Your task to perform on an android device: Search for hotels in Seattle Image 0: 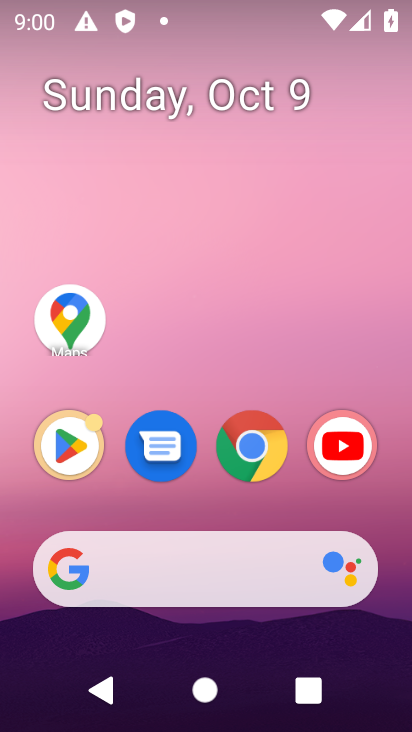
Step 0: click (255, 448)
Your task to perform on an android device: Search for hotels in Seattle Image 1: 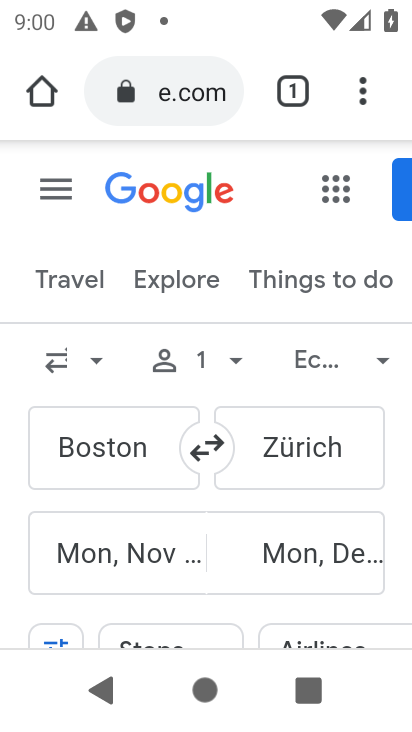
Step 1: click (160, 79)
Your task to perform on an android device: Search for hotels in Seattle Image 2: 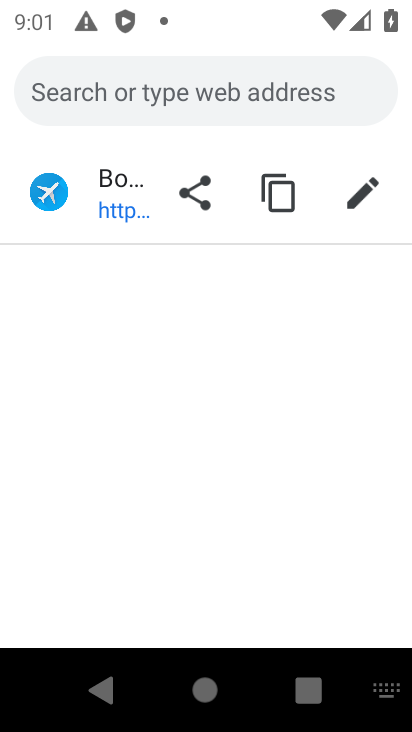
Step 2: type "hotels in Seattle"
Your task to perform on an android device: Search for hotels in Seattle Image 3: 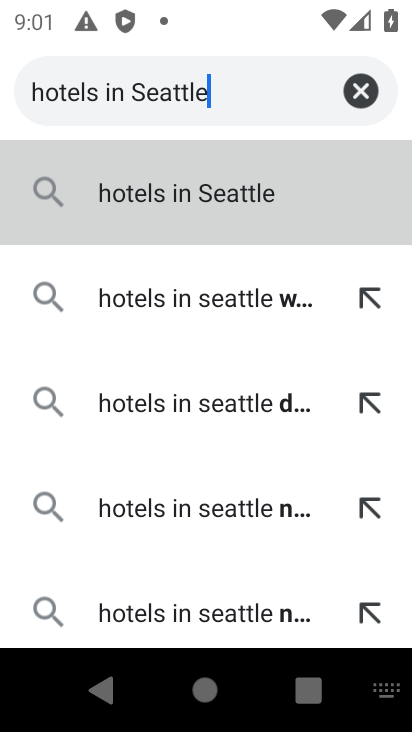
Step 3: click (256, 204)
Your task to perform on an android device: Search for hotels in Seattle Image 4: 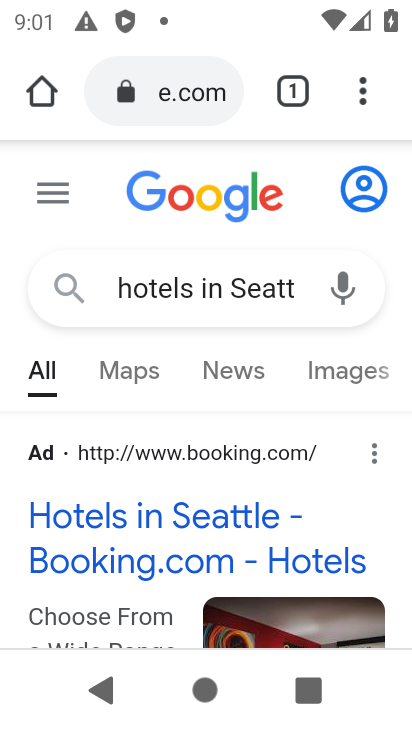
Step 4: drag from (346, 521) to (270, 107)
Your task to perform on an android device: Search for hotels in Seattle Image 5: 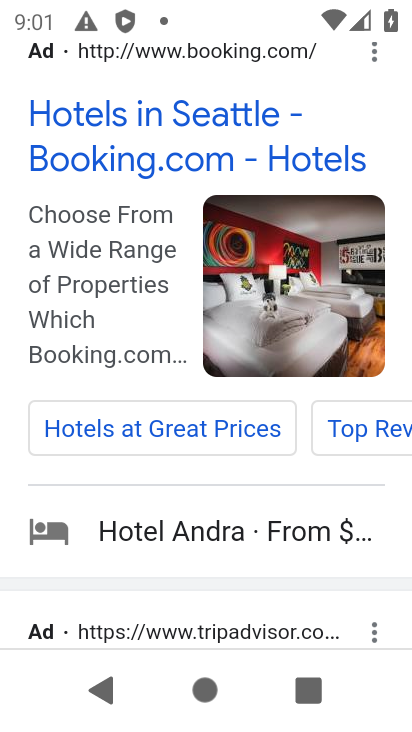
Step 5: drag from (339, 576) to (268, 70)
Your task to perform on an android device: Search for hotels in Seattle Image 6: 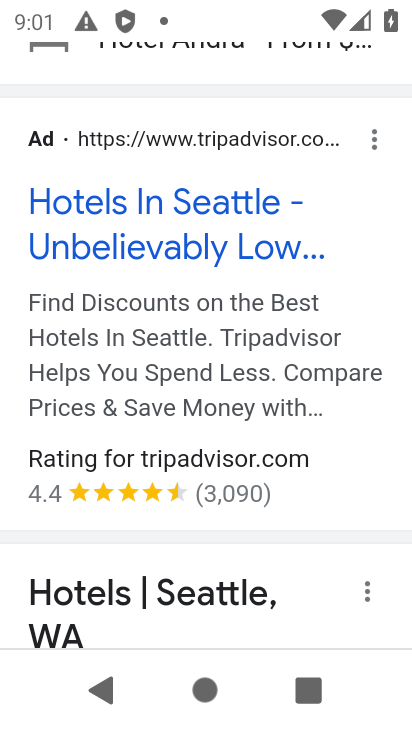
Step 6: drag from (289, 540) to (251, 26)
Your task to perform on an android device: Search for hotels in Seattle Image 7: 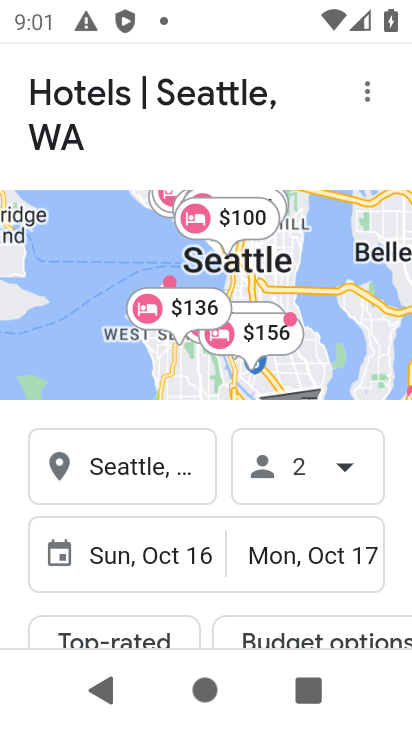
Step 7: drag from (396, 538) to (361, 233)
Your task to perform on an android device: Search for hotels in Seattle Image 8: 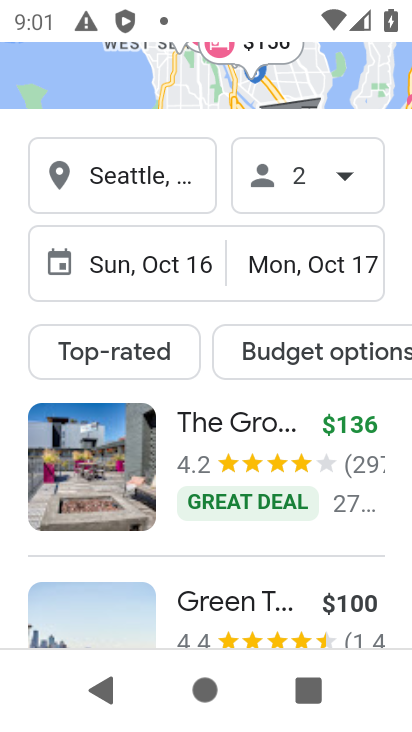
Step 8: drag from (360, 565) to (309, 95)
Your task to perform on an android device: Search for hotels in Seattle Image 9: 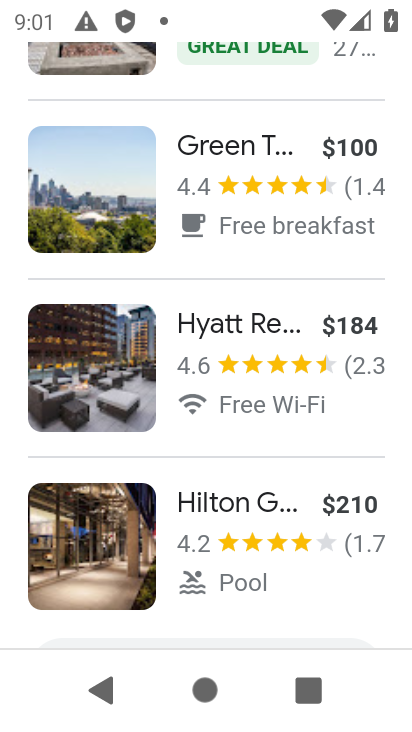
Step 9: drag from (345, 624) to (298, 361)
Your task to perform on an android device: Search for hotels in Seattle Image 10: 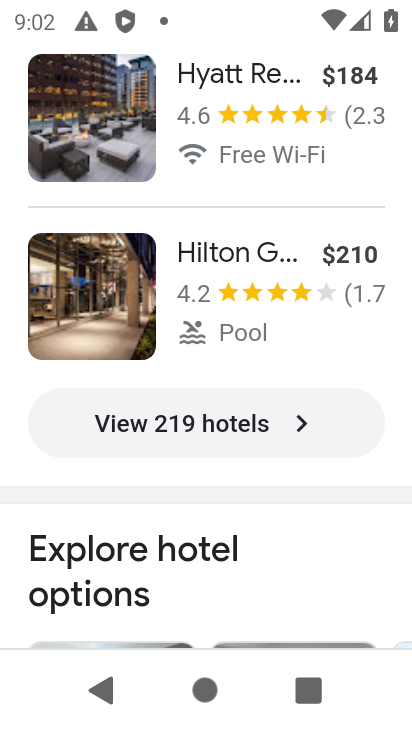
Step 10: click (219, 433)
Your task to perform on an android device: Search for hotels in Seattle Image 11: 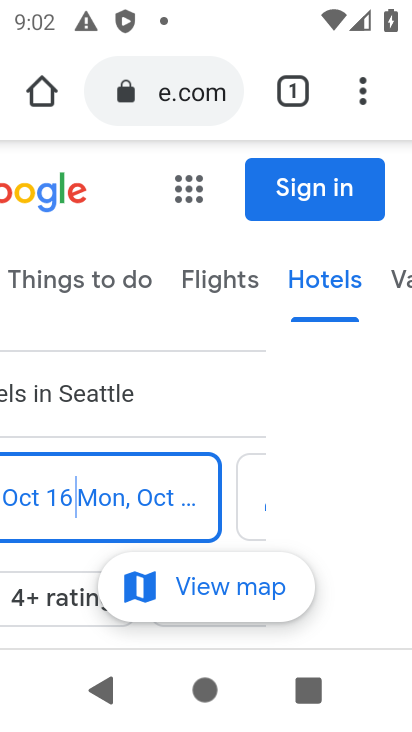
Step 11: task complete